Your task to perform on an android device: Open privacy settings Image 0: 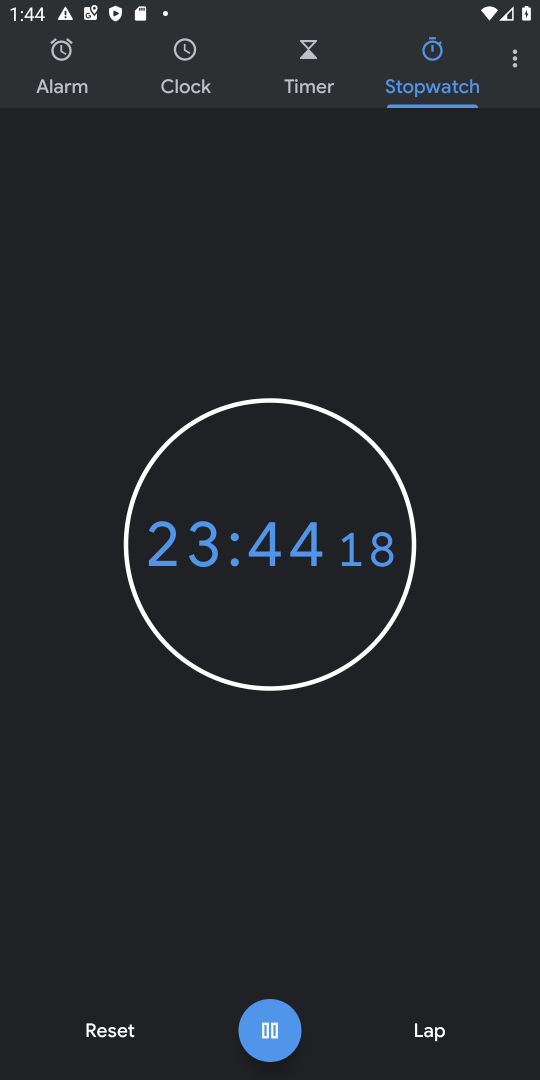
Step 0: press home button
Your task to perform on an android device: Open privacy settings Image 1: 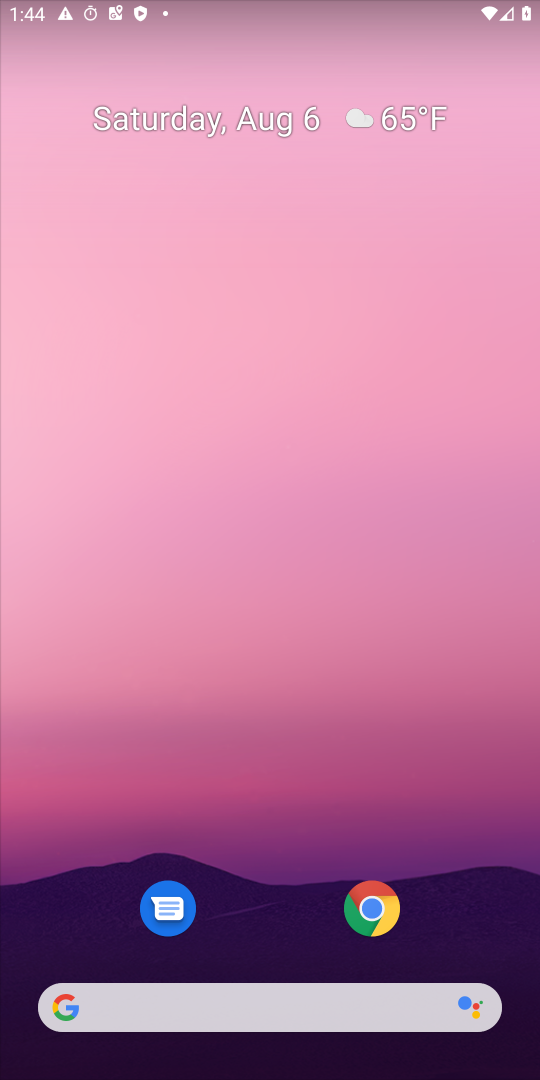
Step 1: drag from (274, 871) to (170, 88)
Your task to perform on an android device: Open privacy settings Image 2: 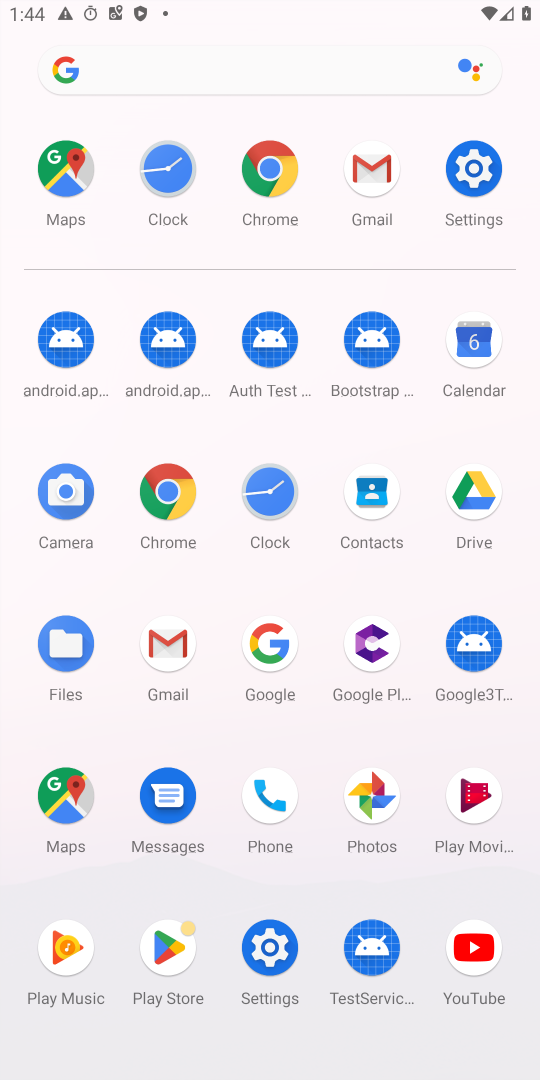
Step 2: click (480, 185)
Your task to perform on an android device: Open privacy settings Image 3: 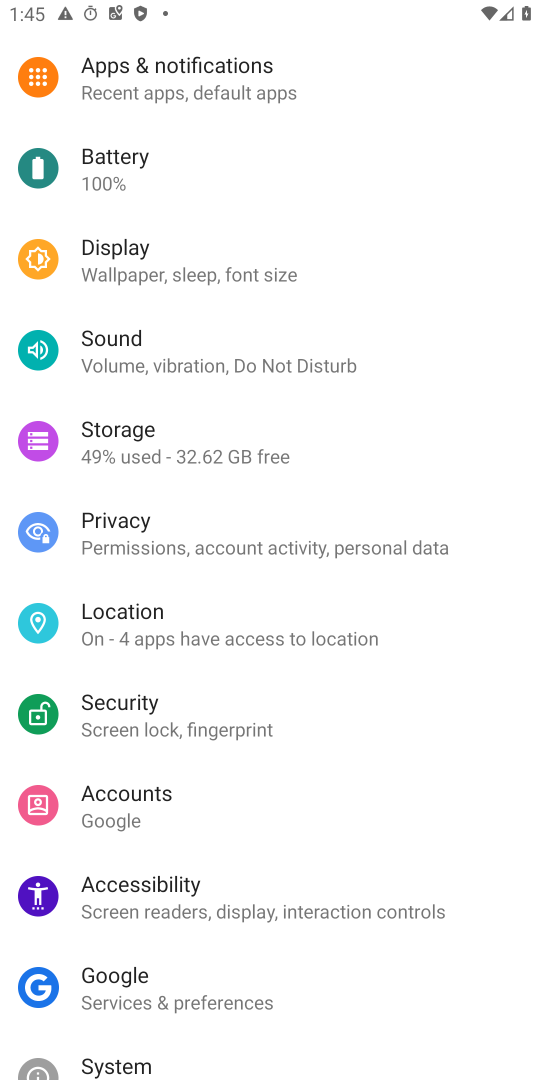
Step 3: click (113, 526)
Your task to perform on an android device: Open privacy settings Image 4: 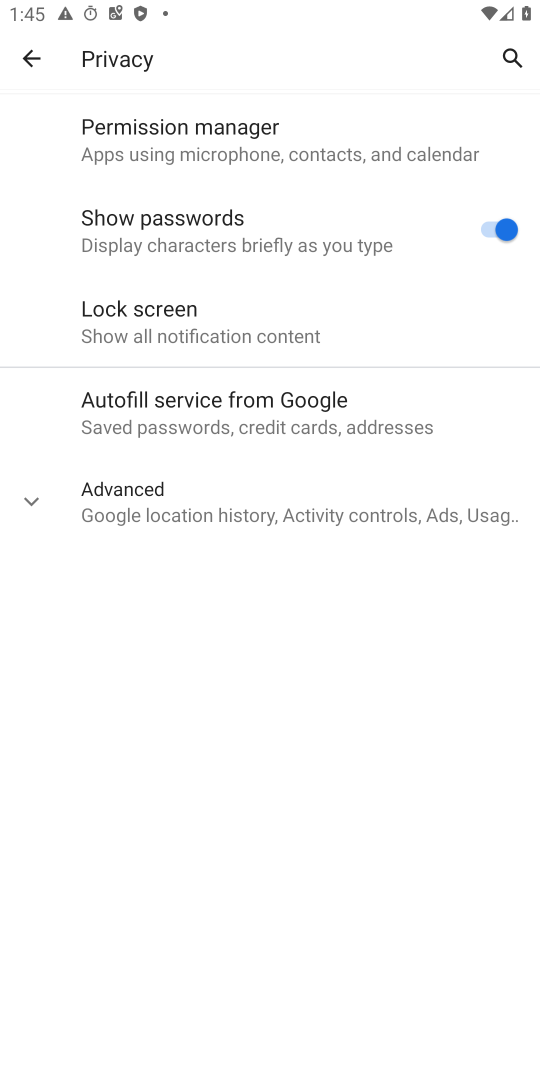
Step 4: task complete